Your task to perform on an android device: Open Google Maps Image 0: 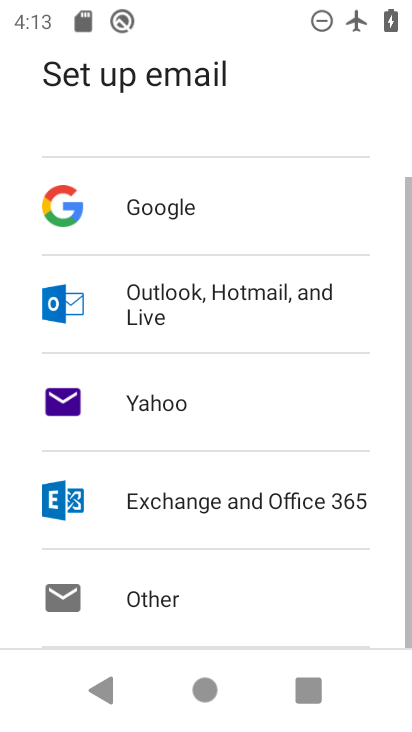
Step 0: press home button
Your task to perform on an android device: Open Google Maps Image 1: 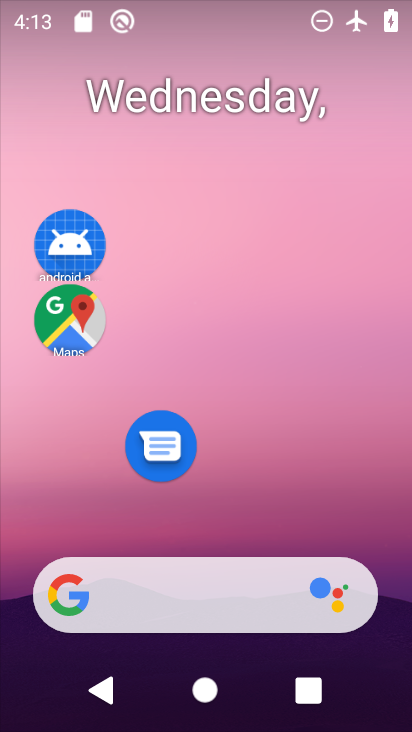
Step 1: click (66, 350)
Your task to perform on an android device: Open Google Maps Image 2: 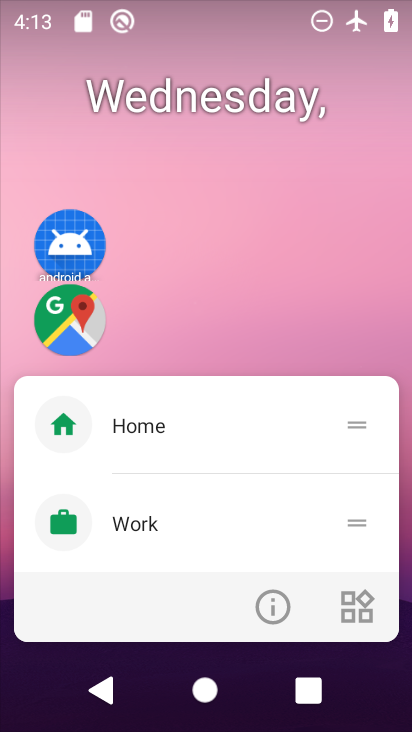
Step 2: click (78, 324)
Your task to perform on an android device: Open Google Maps Image 3: 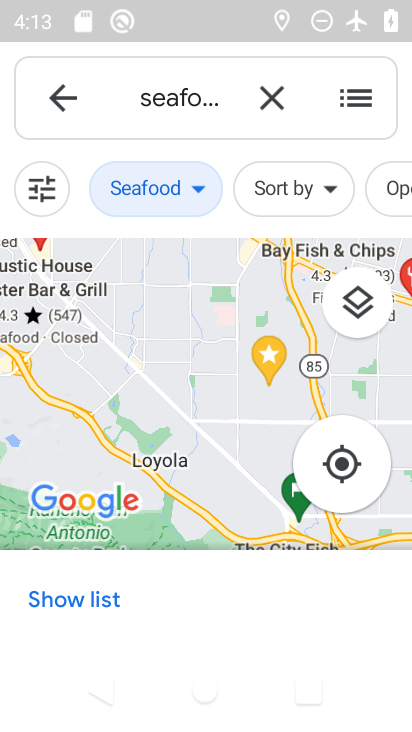
Step 3: task complete